Your task to perform on an android device: turn off notifications settings in the gmail app Image 0: 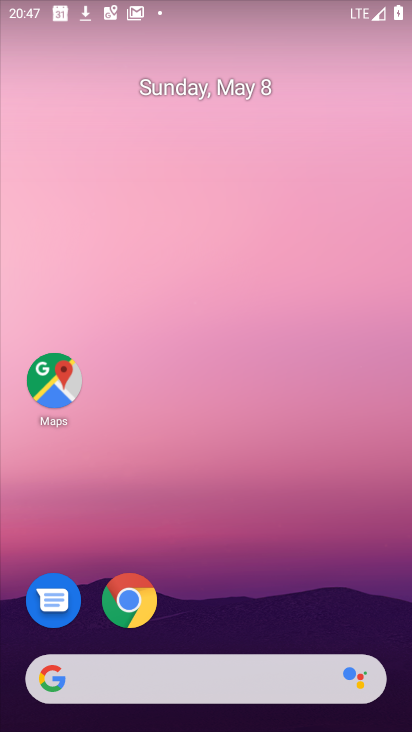
Step 0: drag from (255, 615) to (294, 401)
Your task to perform on an android device: turn off notifications settings in the gmail app Image 1: 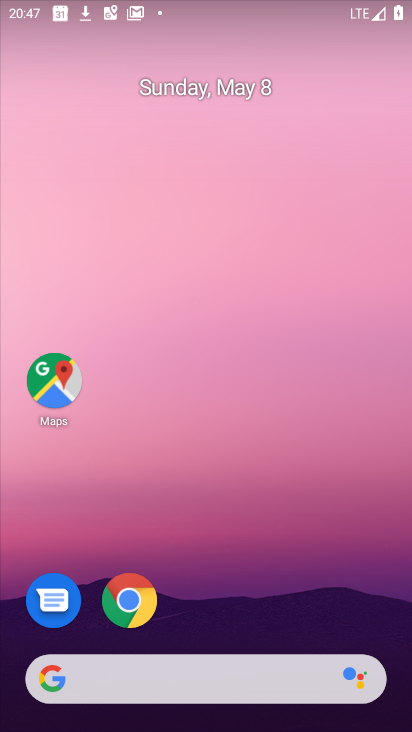
Step 1: drag from (217, 728) to (274, 321)
Your task to perform on an android device: turn off notifications settings in the gmail app Image 2: 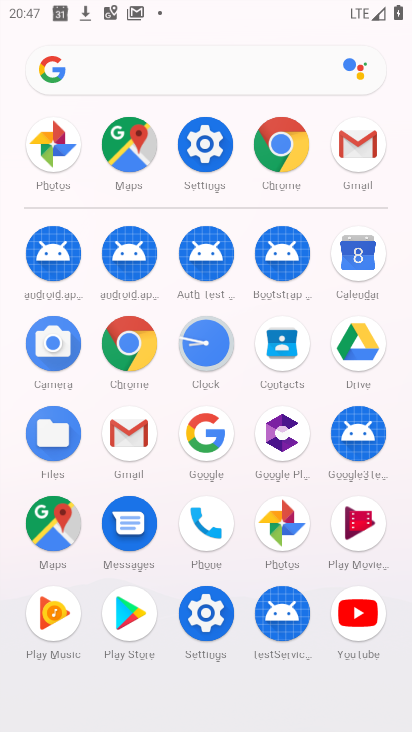
Step 2: click (109, 431)
Your task to perform on an android device: turn off notifications settings in the gmail app Image 3: 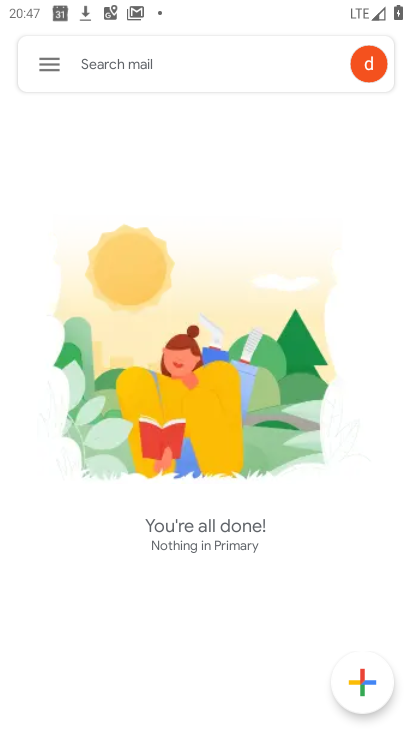
Step 3: click (53, 79)
Your task to perform on an android device: turn off notifications settings in the gmail app Image 4: 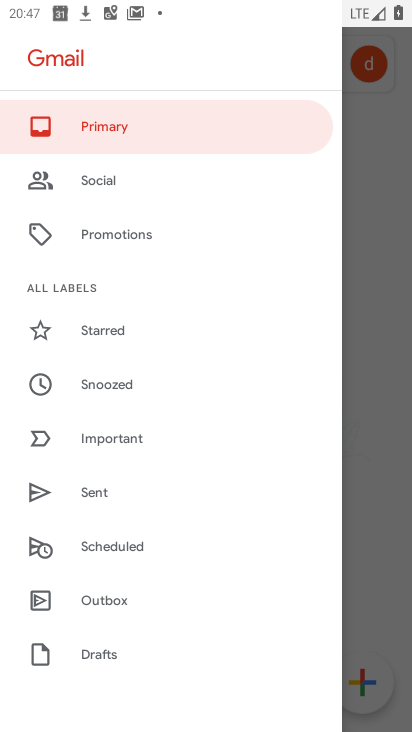
Step 4: drag from (141, 616) to (228, 461)
Your task to perform on an android device: turn off notifications settings in the gmail app Image 5: 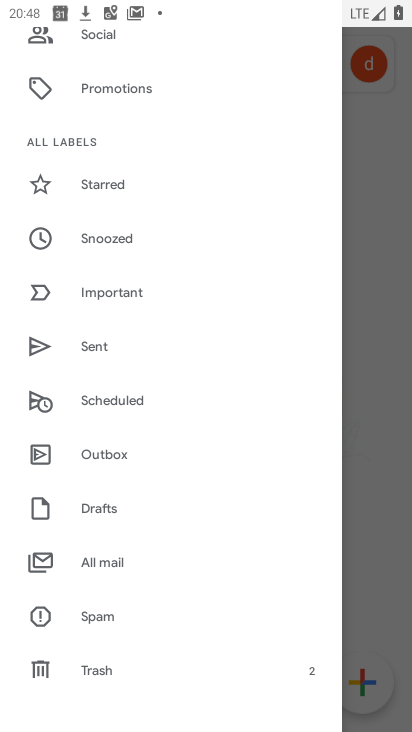
Step 5: drag from (168, 610) to (239, 435)
Your task to perform on an android device: turn off notifications settings in the gmail app Image 6: 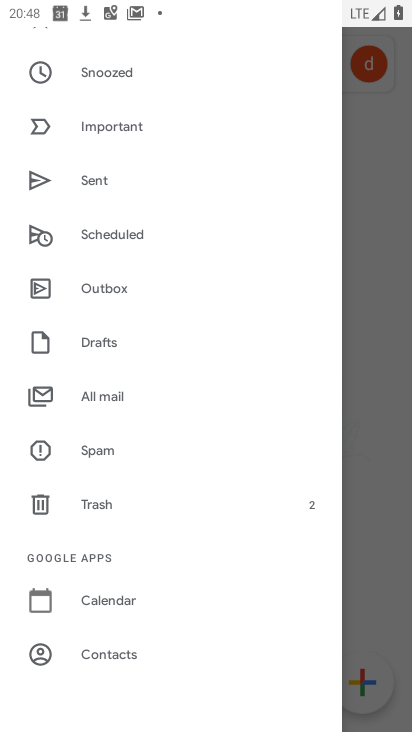
Step 6: drag from (88, 633) to (93, 471)
Your task to perform on an android device: turn off notifications settings in the gmail app Image 7: 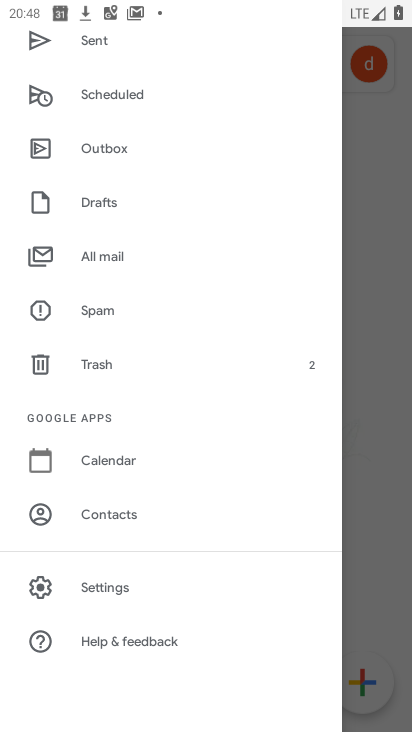
Step 7: click (119, 584)
Your task to perform on an android device: turn off notifications settings in the gmail app Image 8: 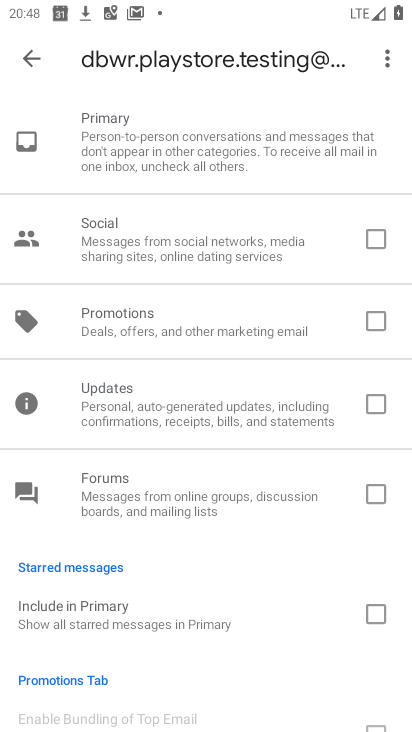
Step 8: click (27, 59)
Your task to perform on an android device: turn off notifications settings in the gmail app Image 9: 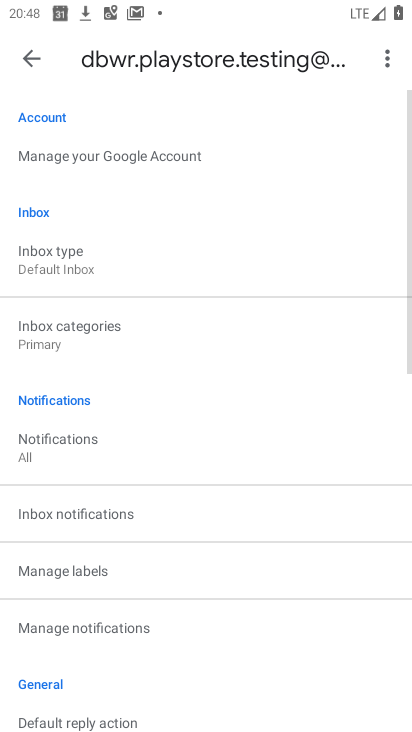
Step 9: click (129, 446)
Your task to perform on an android device: turn off notifications settings in the gmail app Image 10: 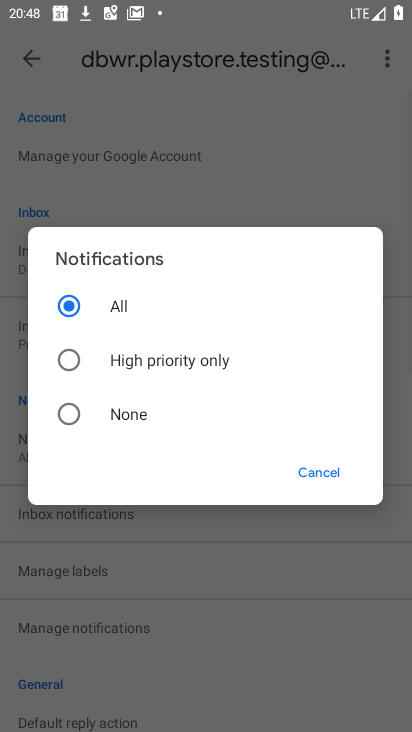
Step 10: click (129, 419)
Your task to perform on an android device: turn off notifications settings in the gmail app Image 11: 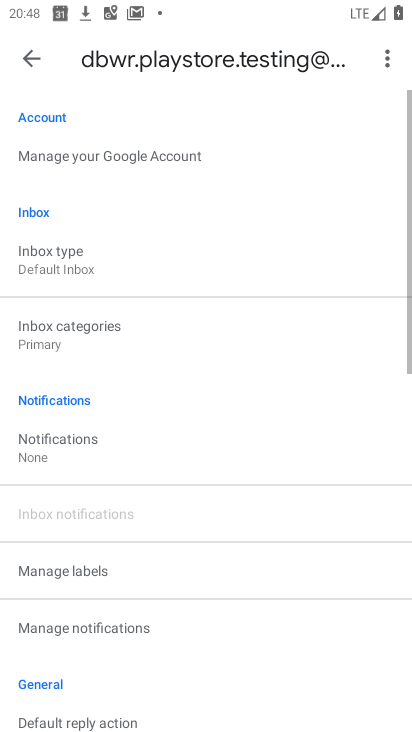
Step 11: task complete